Your task to perform on an android device: toggle data saver in the chrome app Image 0: 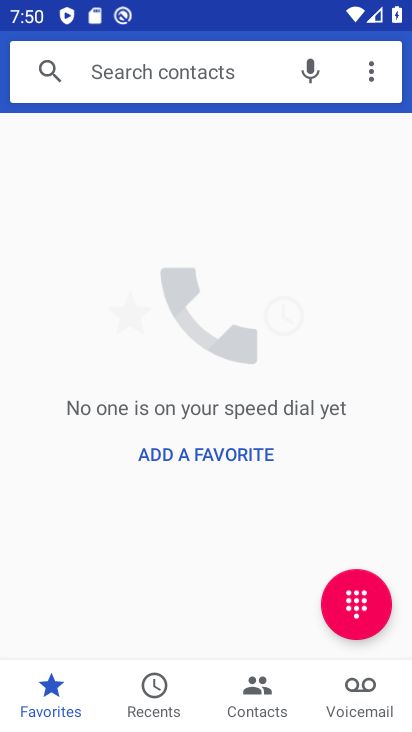
Step 0: press home button
Your task to perform on an android device: toggle data saver in the chrome app Image 1: 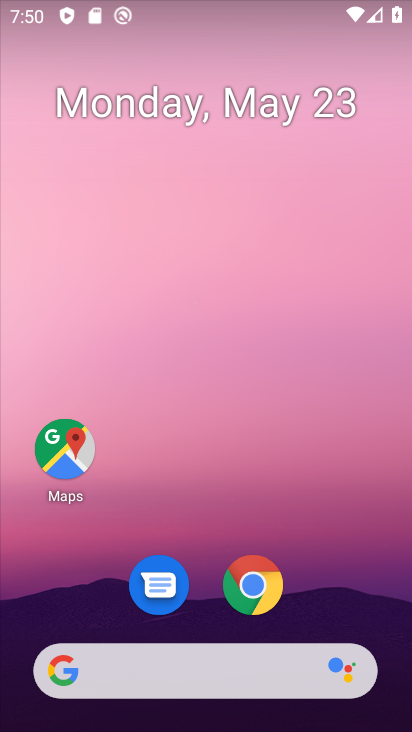
Step 1: click (260, 570)
Your task to perform on an android device: toggle data saver in the chrome app Image 2: 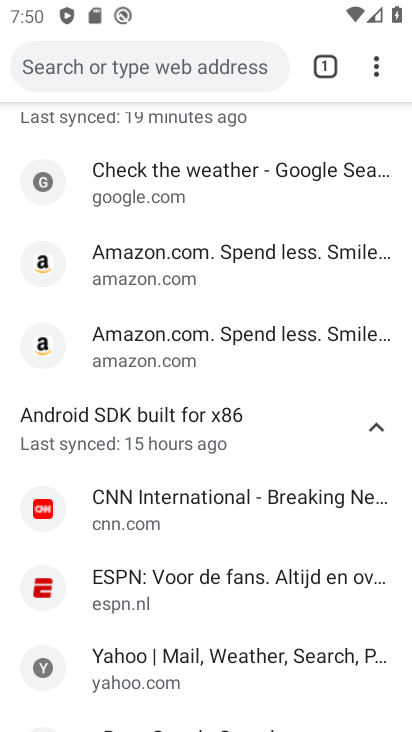
Step 2: click (377, 74)
Your task to perform on an android device: toggle data saver in the chrome app Image 3: 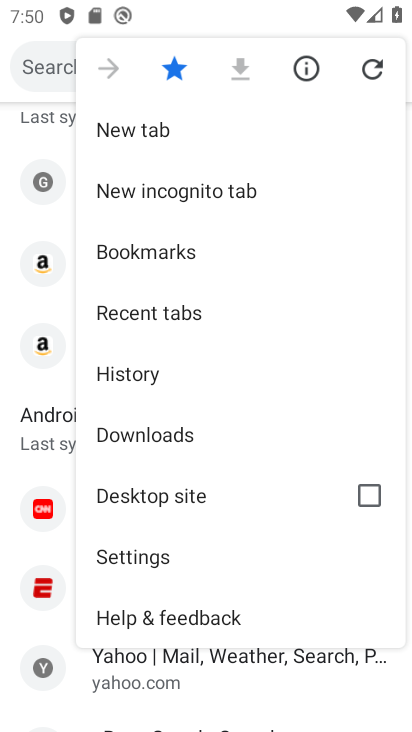
Step 3: drag from (228, 404) to (242, 160)
Your task to perform on an android device: toggle data saver in the chrome app Image 4: 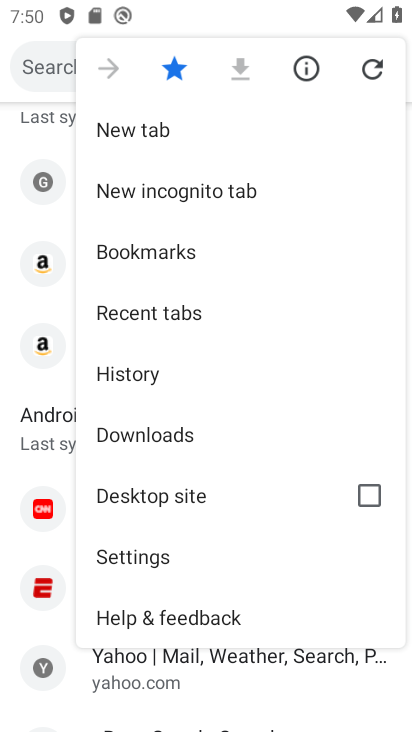
Step 4: click (178, 552)
Your task to perform on an android device: toggle data saver in the chrome app Image 5: 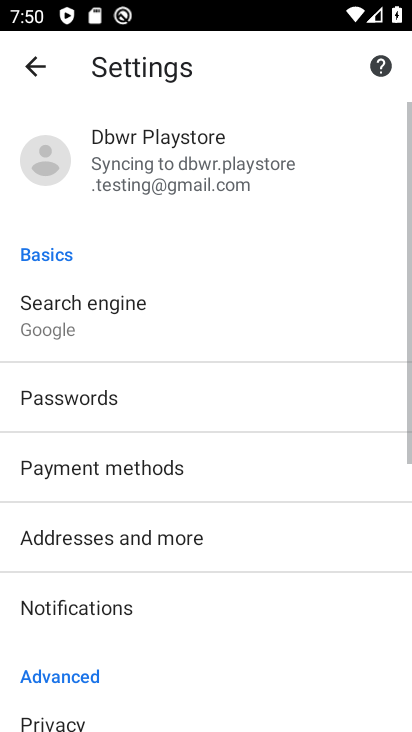
Step 5: drag from (235, 601) to (295, 103)
Your task to perform on an android device: toggle data saver in the chrome app Image 6: 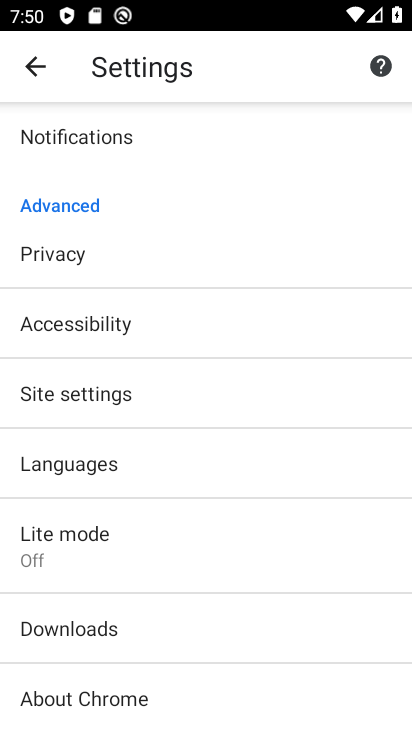
Step 6: click (209, 551)
Your task to perform on an android device: toggle data saver in the chrome app Image 7: 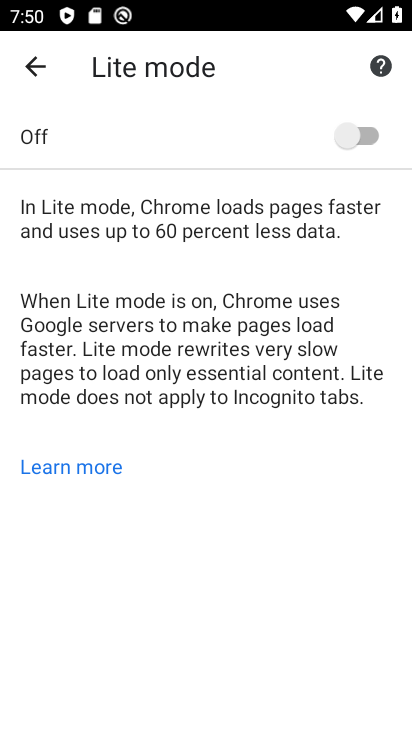
Step 7: click (356, 130)
Your task to perform on an android device: toggle data saver in the chrome app Image 8: 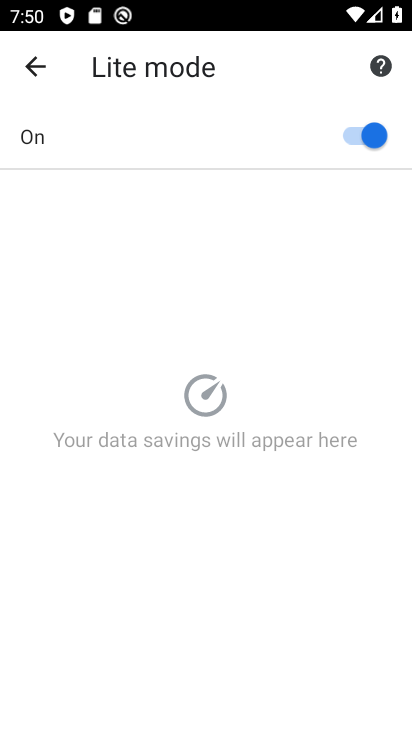
Step 8: task complete